Your task to perform on an android device: Search for "logitech g910" on target.com, select the first entry, and add it to the cart. Image 0: 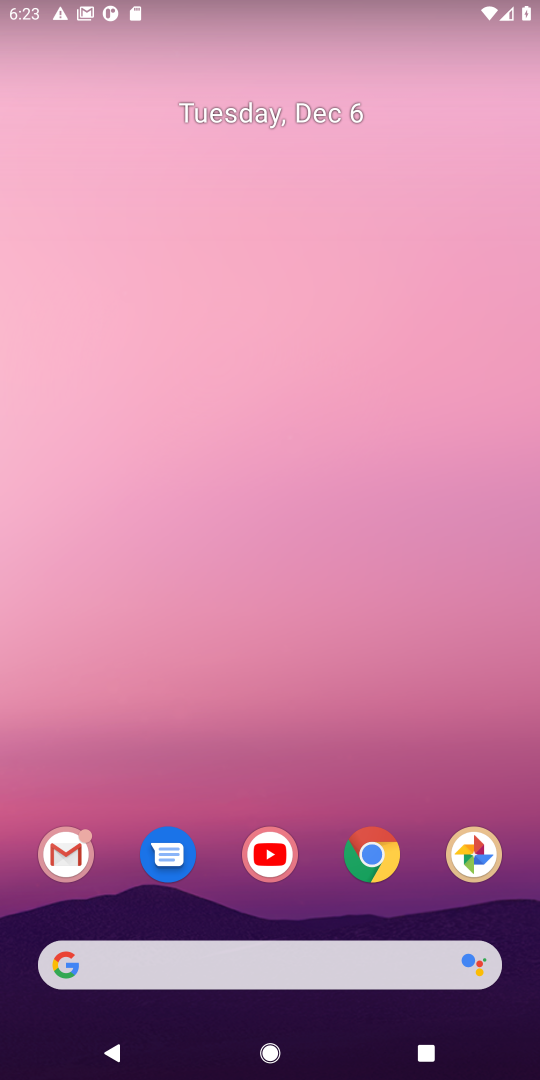
Step 0: click (382, 843)
Your task to perform on an android device: Search for "logitech g910" on target.com, select the first entry, and add it to the cart. Image 1: 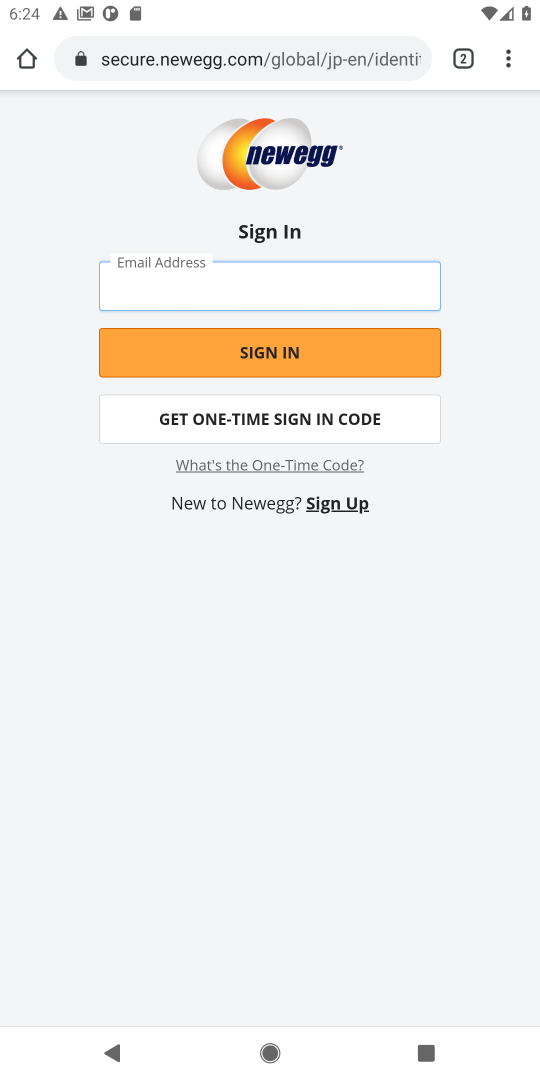
Step 1: click (460, 56)
Your task to perform on an android device: Search for "logitech g910" on target.com, select the first entry, and add it to the cart. Image 2: 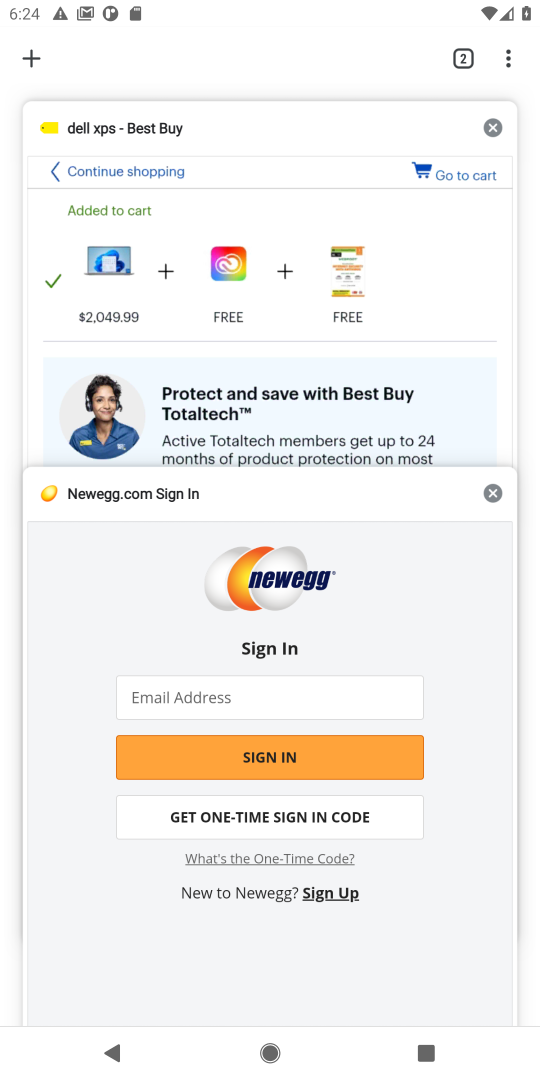
Step 2: click (33, 40)
Your task to perform on an android device: Search for "logitech g910" on target.com, select the first entry, and add it to the cart. Image 3: 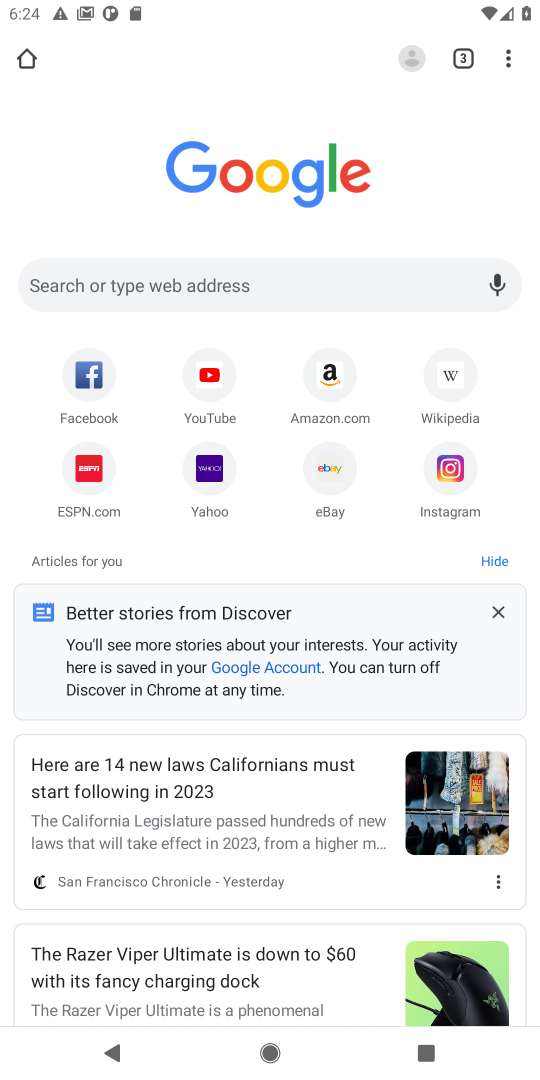
Step 3: click (162, 288)
Your task to perform on an android device: Search for "logitech g910" on target.com, select the first entry, and add it to the cart. Image 4: 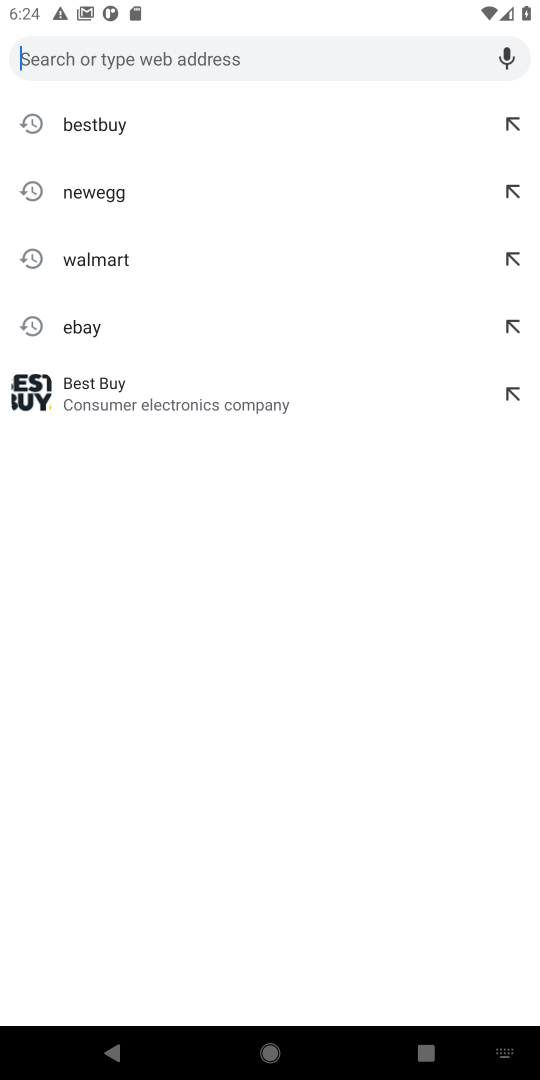
Step 4: type "target"
Your task to perform on an android device: Search for "logitech g910" on target.com, select the first entry, and add it to the cart. Image 5: 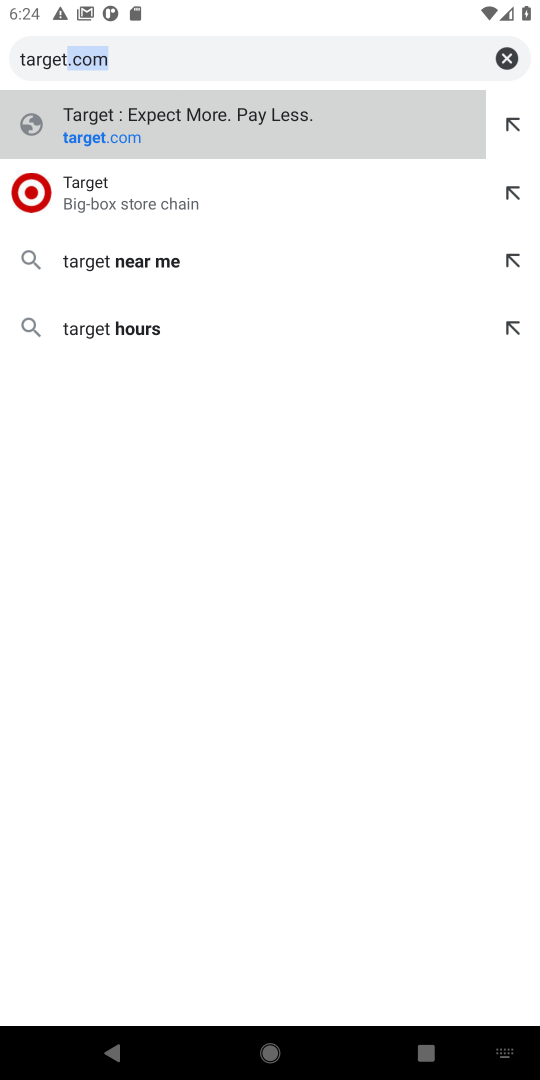
Step 5: click (169, 203)
Your task to perform on an android device: Search for "logitech g910" on target.com, select the first entry, and add it to the cart. Image 6: 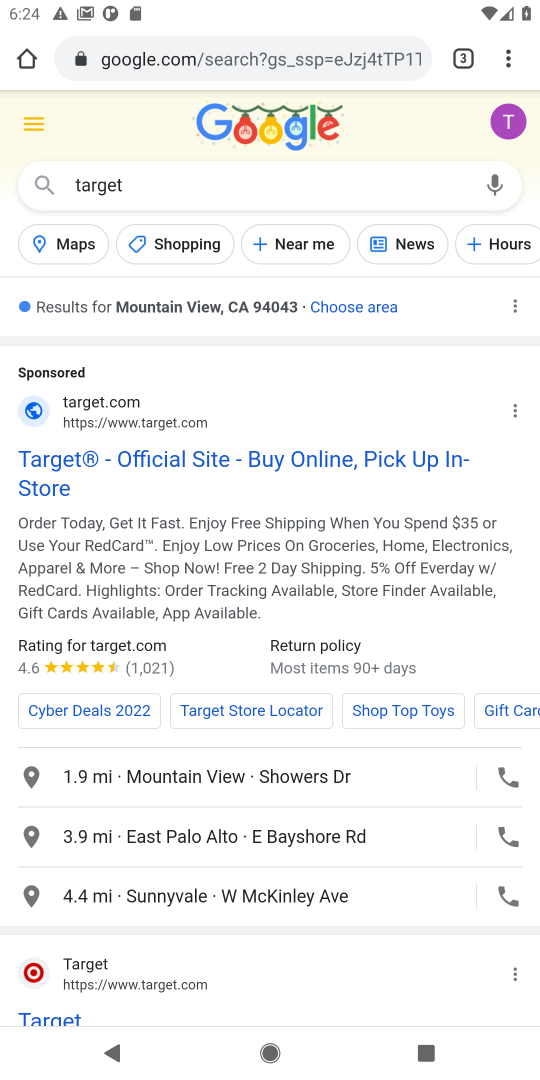
Step 6: click (40, 1012)
Your task to perform on an android device: Search for "logitech g910" on target.com, select the first entry, and add it to the cart. Image 7: 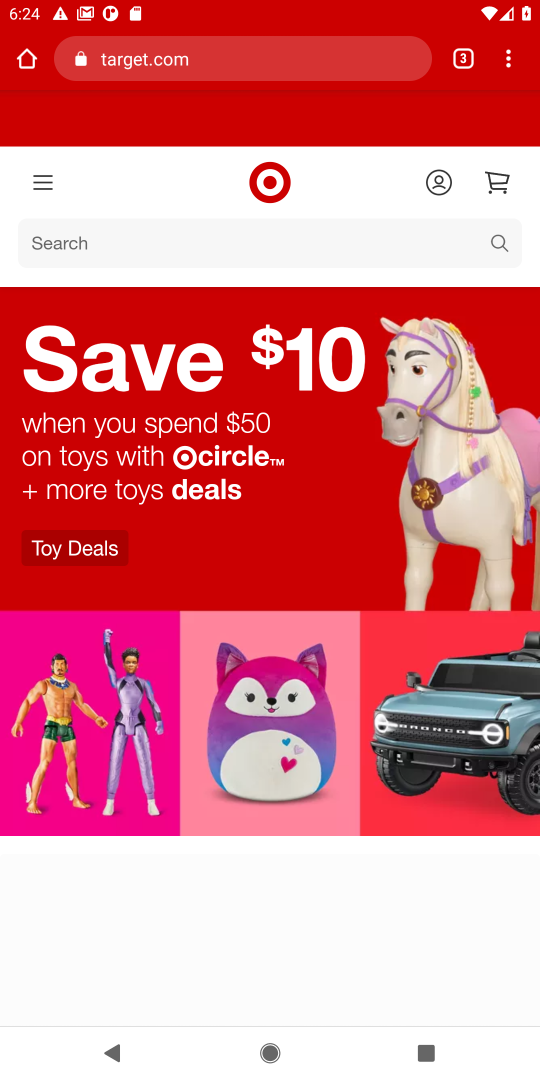
Step 7: click (175, 248)
Your task to perform on an android device: Search for "logitech g910" on target.com, select the first entry, and add it to the cart. Image 8: 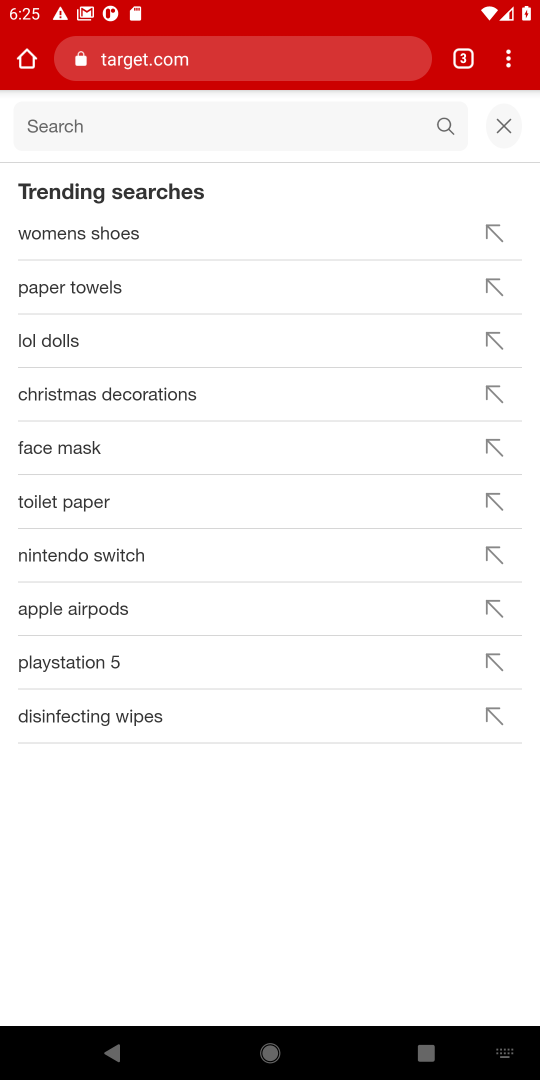
Step 8: type "logitech g910"
Your task to perform on an android device: Search for "logitech g910" on target.com, select the first entry, and add it to the cart. Image 9: 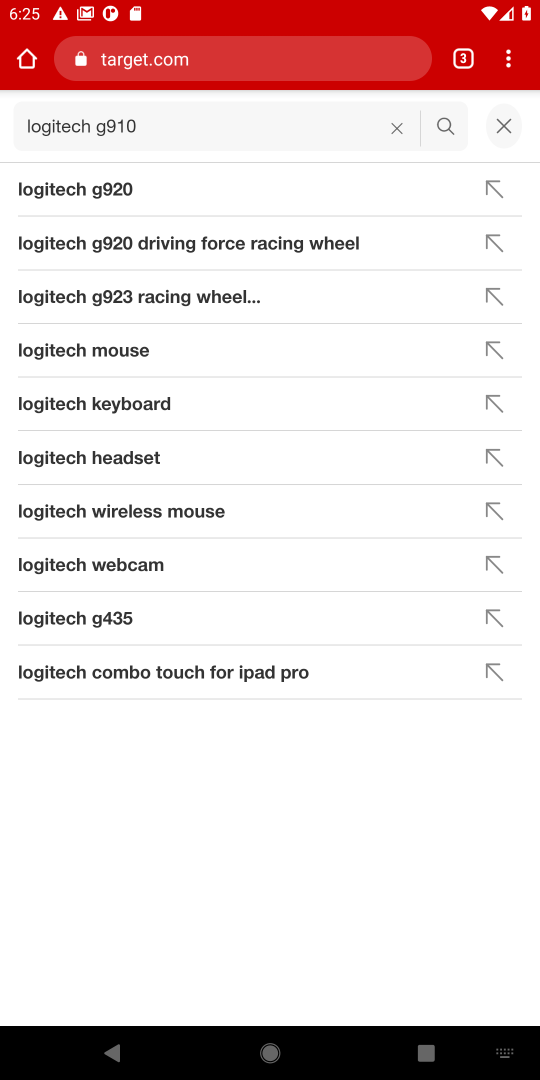
Step 9: click (446, 123)
Your task to perform on an android device: Search for "logitech g910" on target.com, select the first entry, and add it to the cart. Image 10: 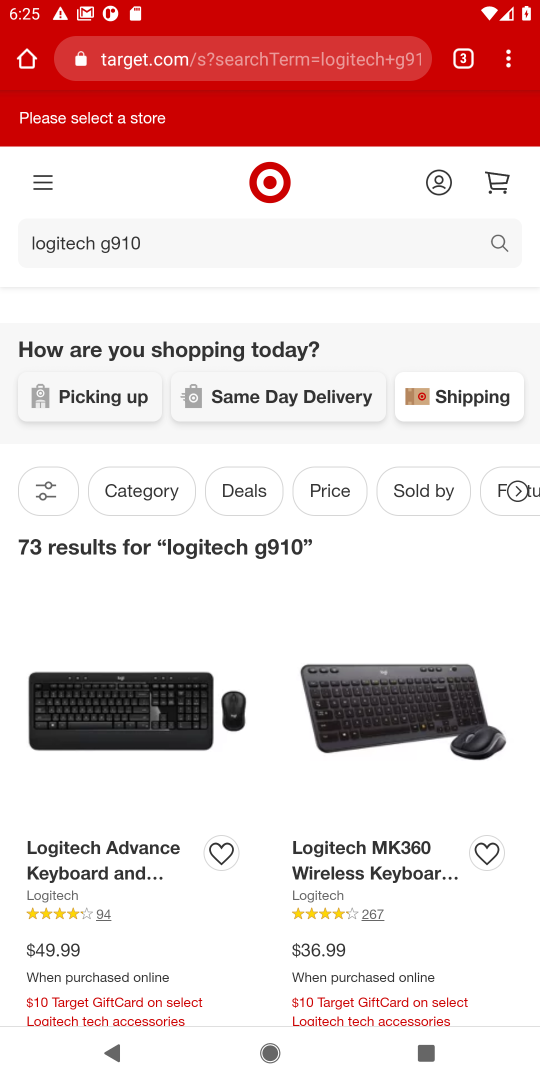
Step 10: task complete